Your task to perform on an android device: star an email in the gmail app Image 0: 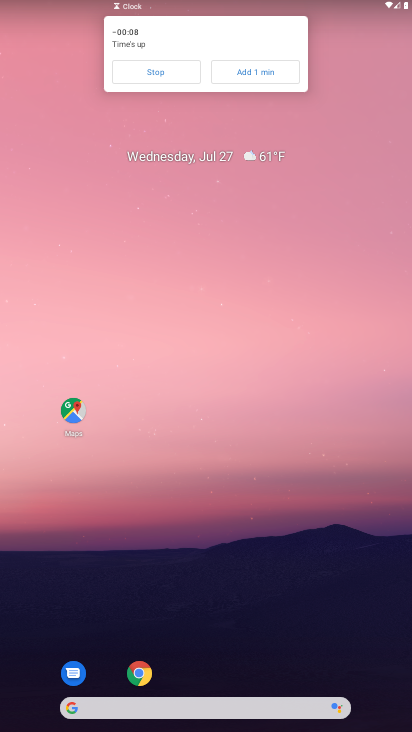
Step 0: drag from (43, 690) to (240, 90)
Your task to perform on an android device: star an email in the gmail app Image 1: 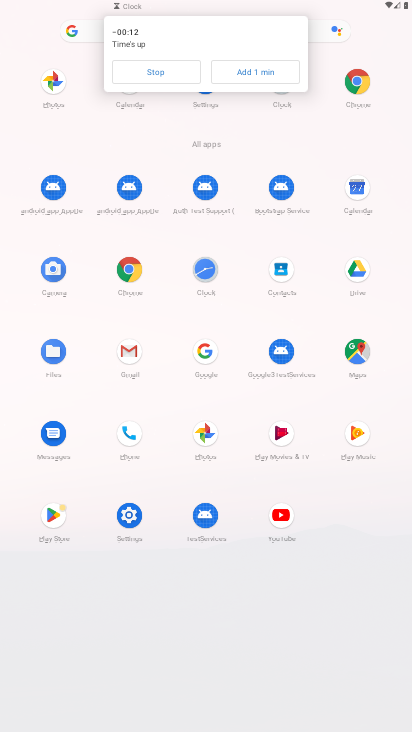
Step 1: click (125, 350)
Your task to perform on an android device: star an email in the gmail app Image 2: 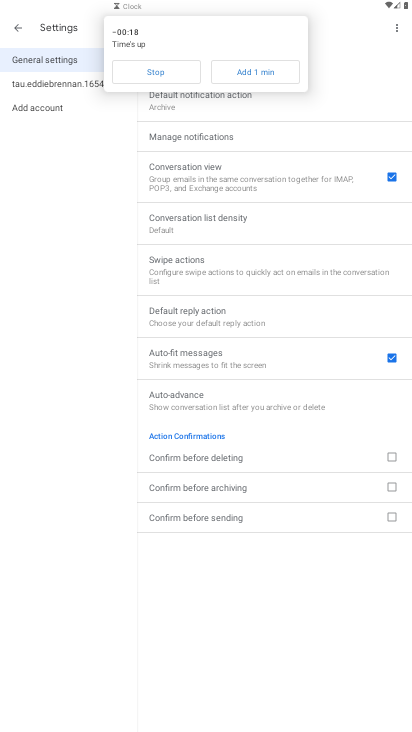
Step 2: click (24, 27)
Your task to perform on an android device: star an email in the gmail app Image 3: 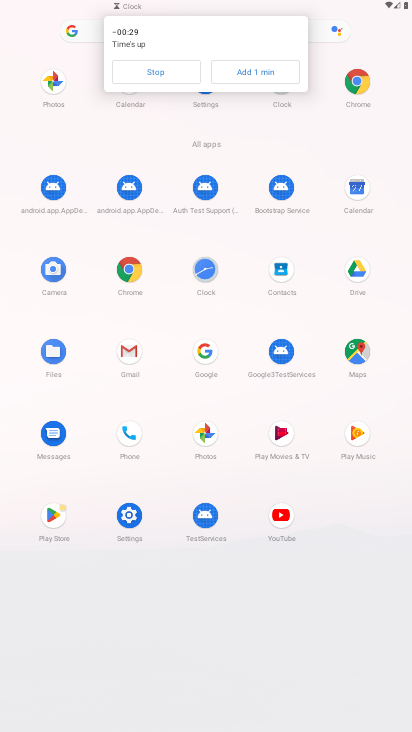
Step 3: click (132, 351)
Your task to perform on an android device: star an email in the gmail app Image 4: 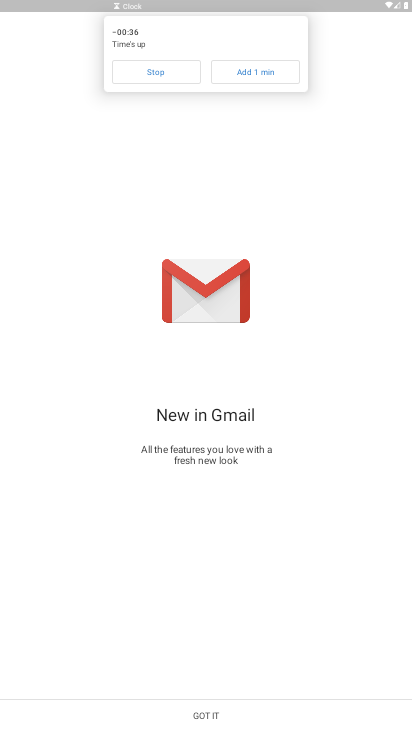
Step 4: click (163, 73)
Your task to perform on an android device: star an email in the gmail app Image 5: 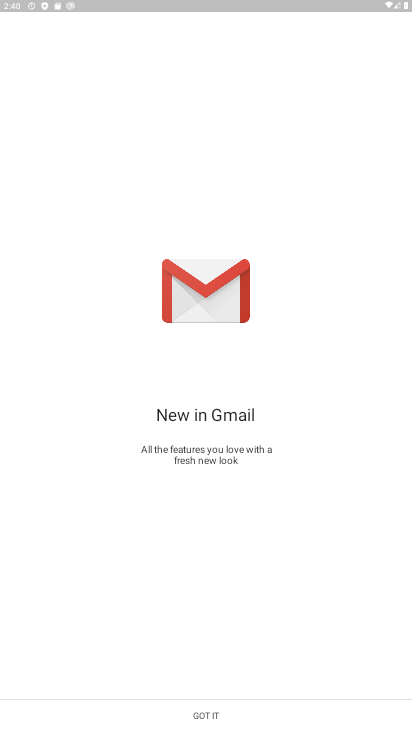
Step 5: click (205, 710)
Your task to perform on an android device: star an email in the gmail app Image 6: 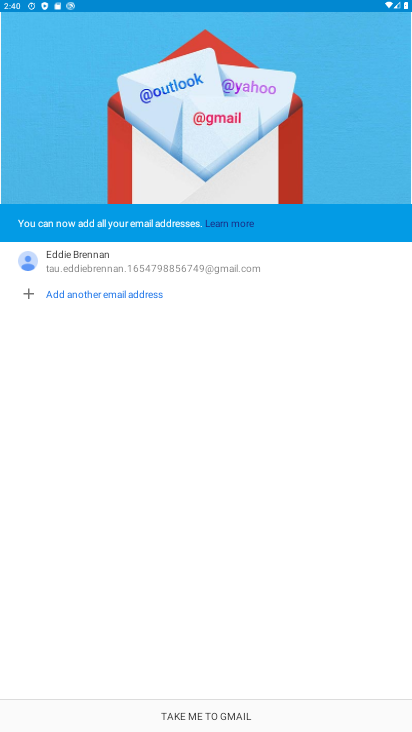
Step 6: click (198, 709)
Your task to perform on an android device: star an email in the gmail app Image 7: 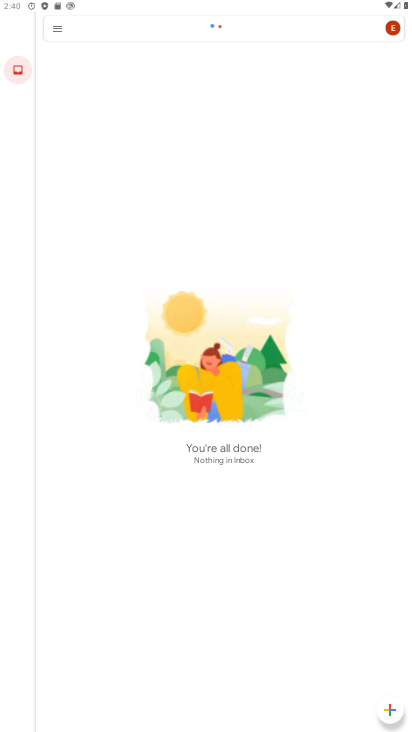
Step 7: click (55, 22)
Your task to perform on an android device: star an email in the gmail app Image 8: 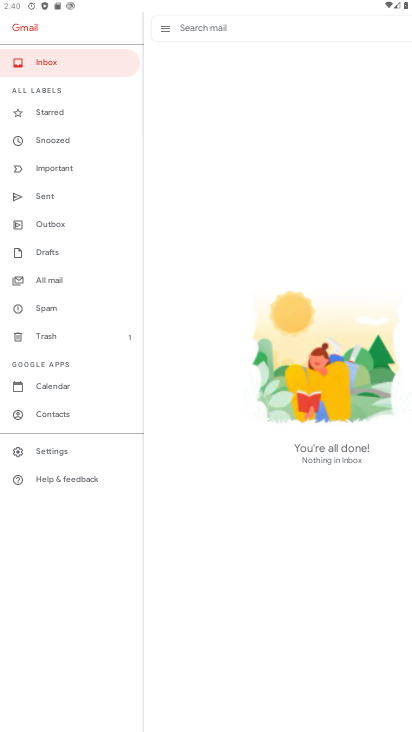
Step 8: click (60, 116)
Your task to perform on an android device: star an email in the gmail app Image 9: 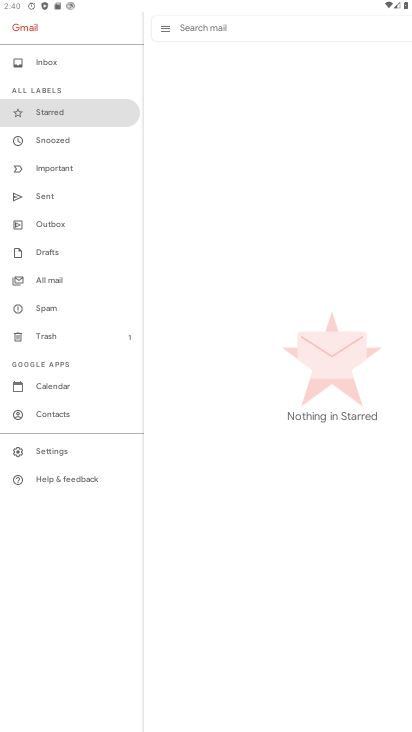
Step 9: task complete